Your task to perform on an android device: allow notifications from all sites in the chrome app Image 0: 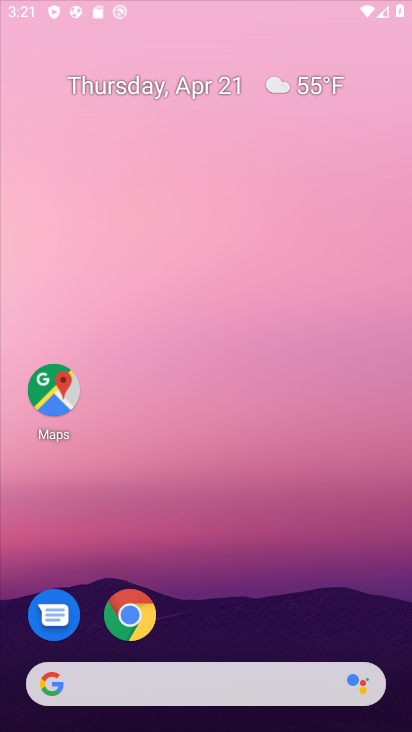
Step 0: drag from (305, 538) to (162, 54)
Your task to perform on an android device: allow notifications from all sites in the chrome app Image 1: 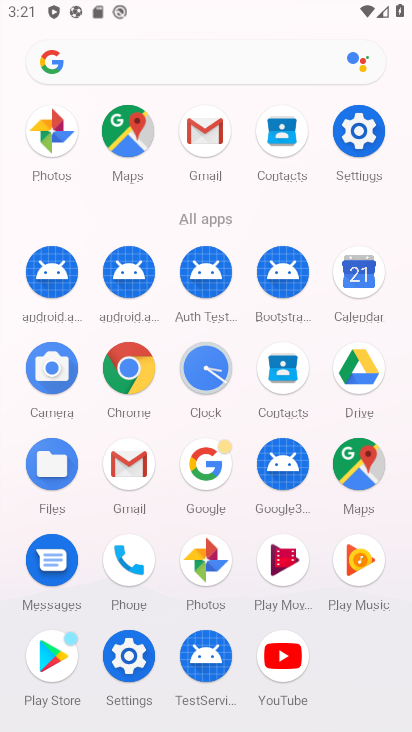
Step 1: click (135, 362)
Your task to perform on an android device: allow notifications from all sites in the chrome app Image 2: 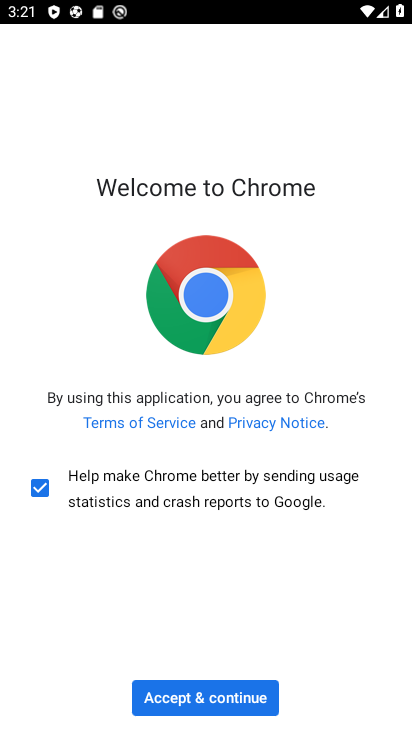
Step 2: click (217, 695)
Your task to perform on an android device: allow notifications from all sites in the chrome app Image 3: 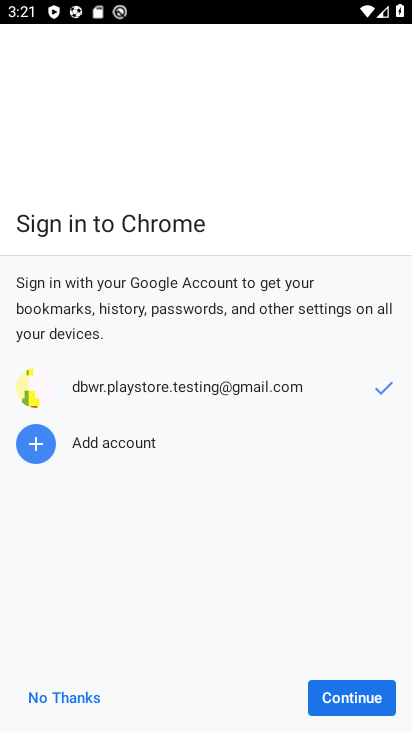
Step 3: click (330, 697)
Your task to perform on an android device: allow notifications from all sites in the chrome app Image 4: 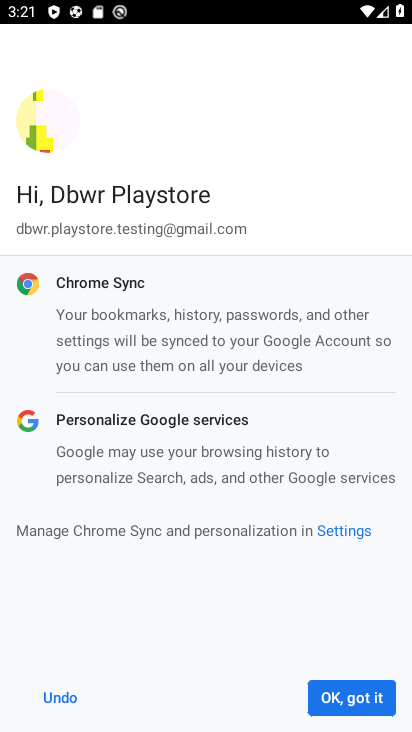
Step 4: click (330, 697)
Your task to perform on an android device: allow notifications from all sites in the chrome app Image 5: 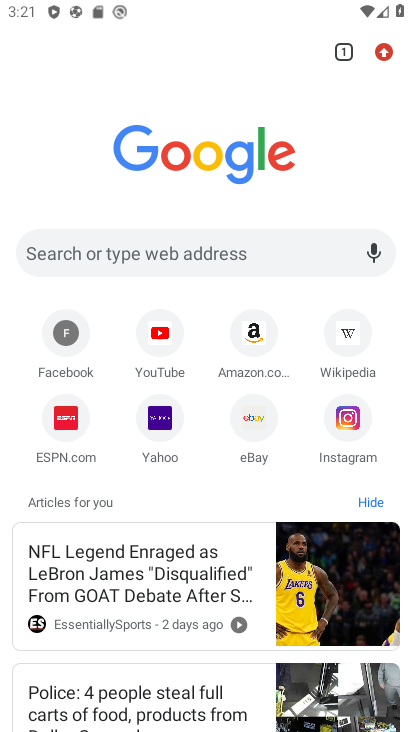
Step 5: drag from (376, 56) to (229, 484)
Your task to perform on an android device: allow notifications from all sites in the chrome app Image 6: 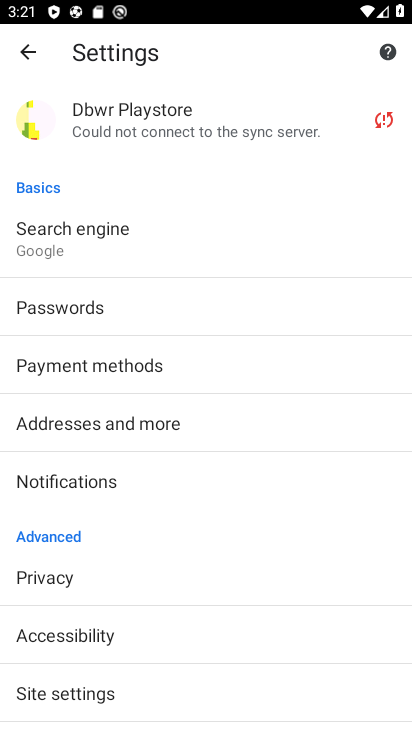
Step 6: drag from (239, 524) to (241, 131)
Your task to perform on an android device: allow notifications from all sites in the chrome app Image 7: 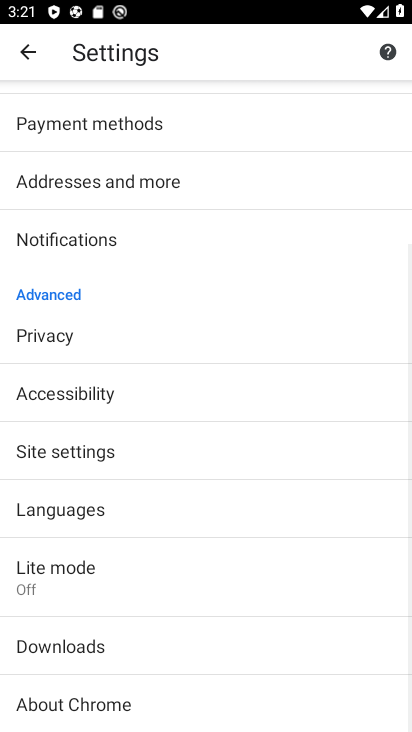
Step 7: drag from (291, 539) to (293, 181)
Your task to perform on an android device: allow notifications from all sites in the chrome app Image 8: 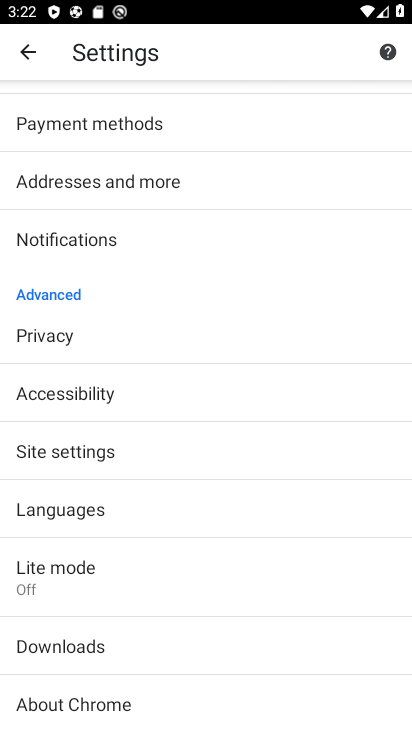
Step 8: click (106, 459)
Your task to perform on an android device: allow notifications from all sites in the chrome app Image 9: 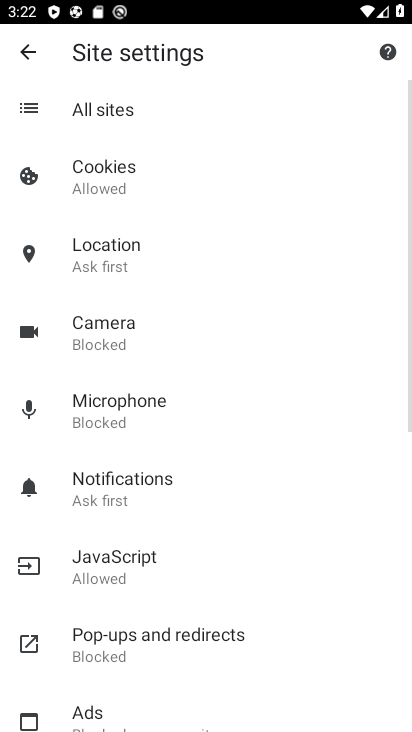
Step 9: drag from (248, 454) to (236, 193)
Your task to perform on an android device: allow notifications from all sites in the chrome app Image 10: 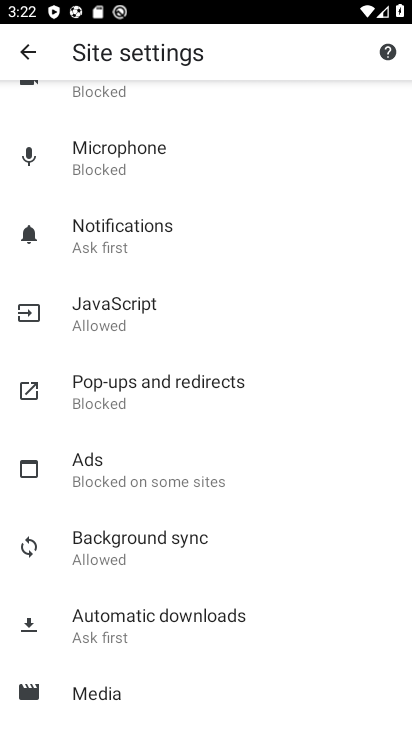
Step 10: click (176, 219)
Your task to perform on an android device: allow notifications from all sites in the chrome app Image 11: 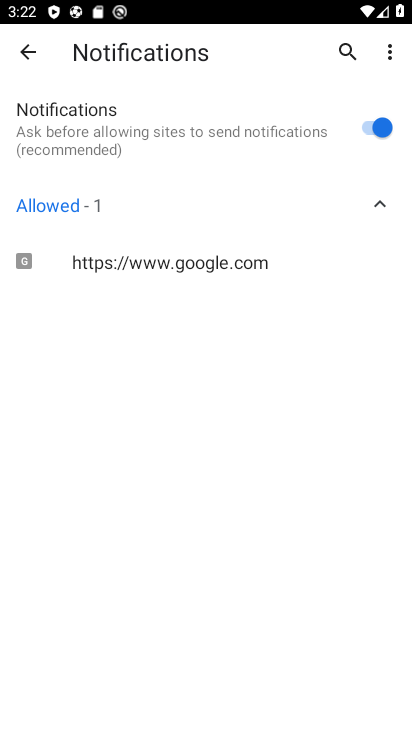
Step 11: task complete